Your task to perform on an android device: change the clock display to show seconds Image 0: 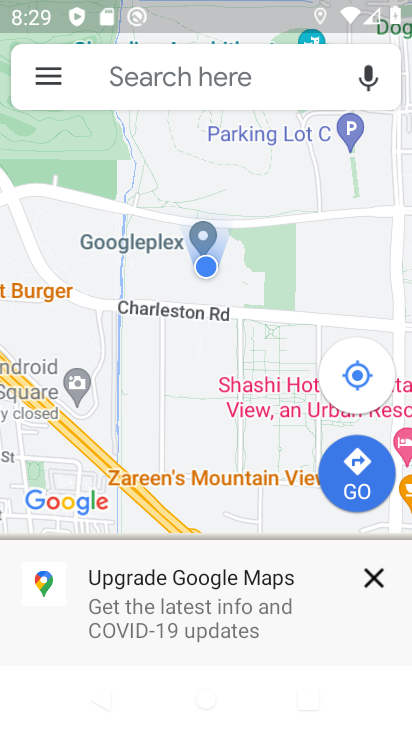
Step 0: press home button
Your task to perform on an android device: change the clock display to show seconds Image 1: 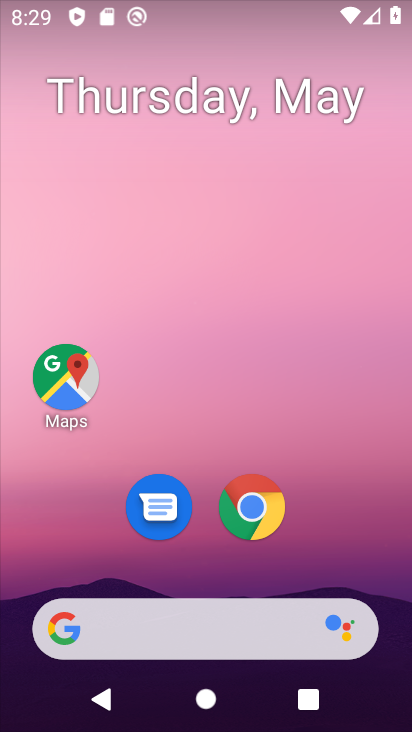
Step 1: drag from (261, 654) to (313, 161)
Your task to perform on an android device: change the clock display to show seconds Image 2: 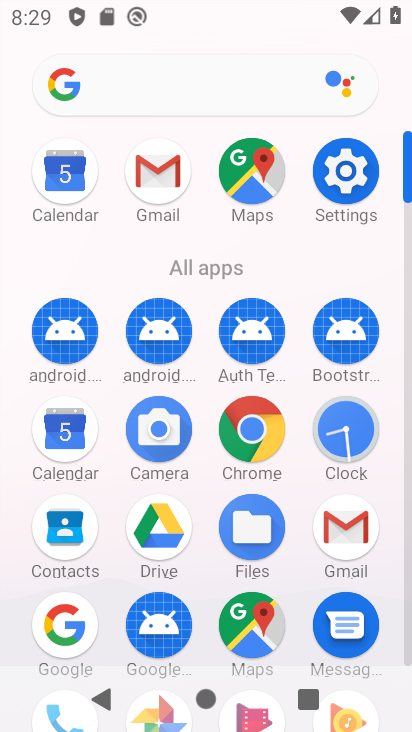
Step 2: click (347, 446)
Your task to perform on an android device: change the clock display to show seconds Image 3: 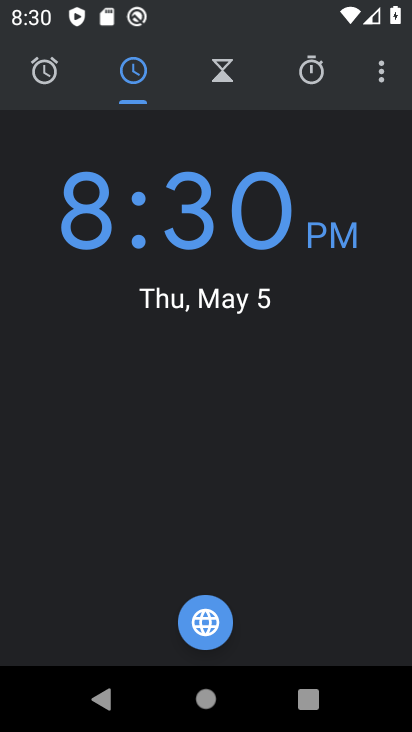
Step 3: click (387, 75)
Your task to perform on an android device: change the clock display to show seconds Image 4: 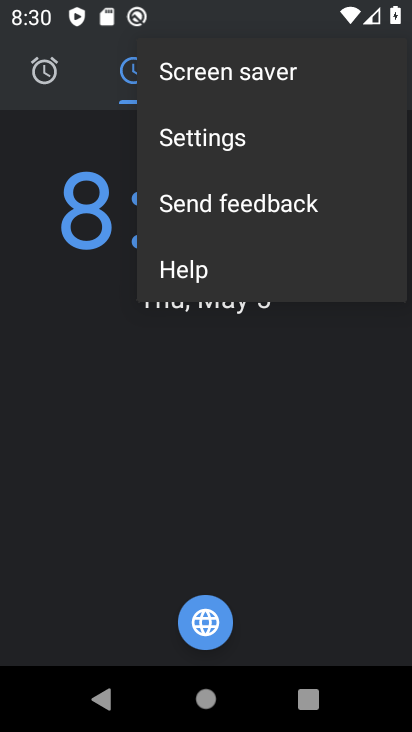
Step 4: click (256, 133)
Your task to perform on an android device: change the clock display to show seconds Image 5: 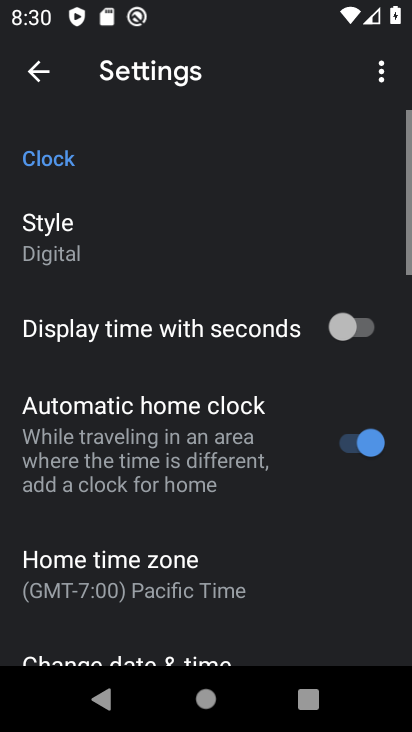
Step 5: click (186, 242)
Your task to perform on an android device: change the clock display to show seconds Image 6: 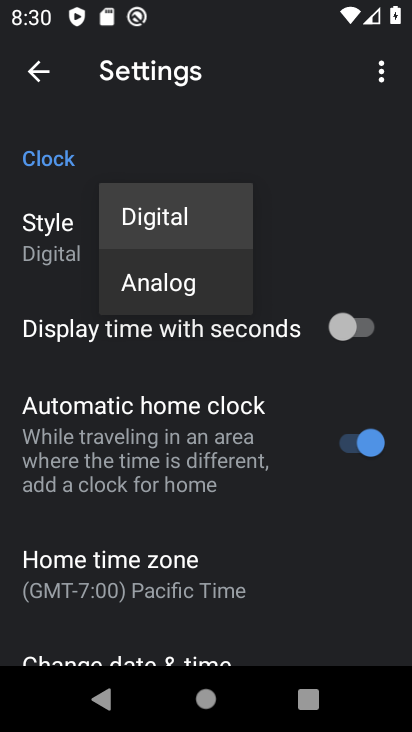
Step 6: click (347, 335)
Your task to perform on an android device: change the clock display to show seconds Image 7: 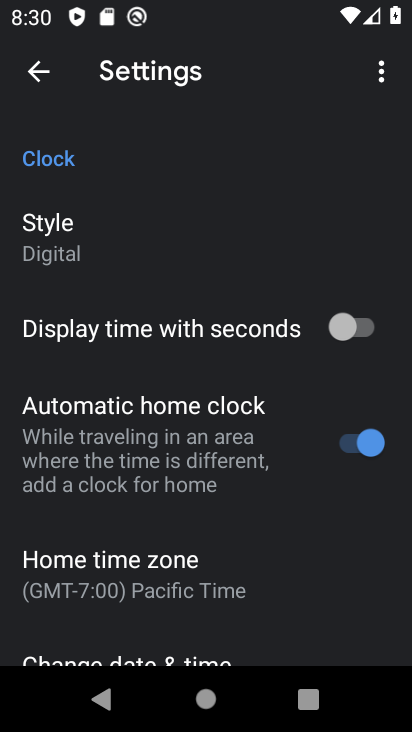
Step 7: click (363, 343)
Your task to perform on an android device: change the clock display to show seconds Image 8: 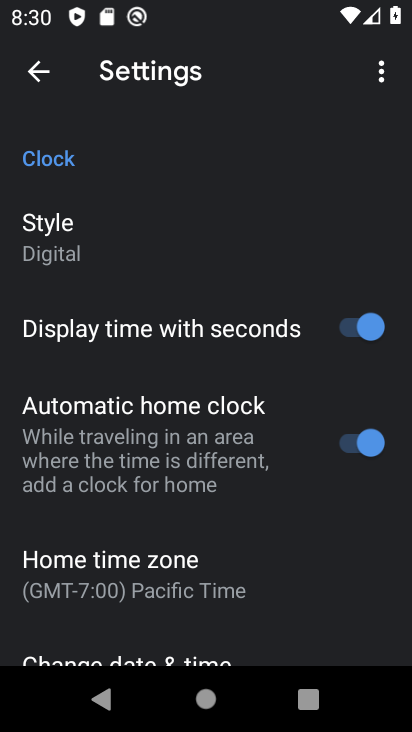
Step 8: task complete